Your task to perform on an android device: clear all cookies in the chrome app Image 0: 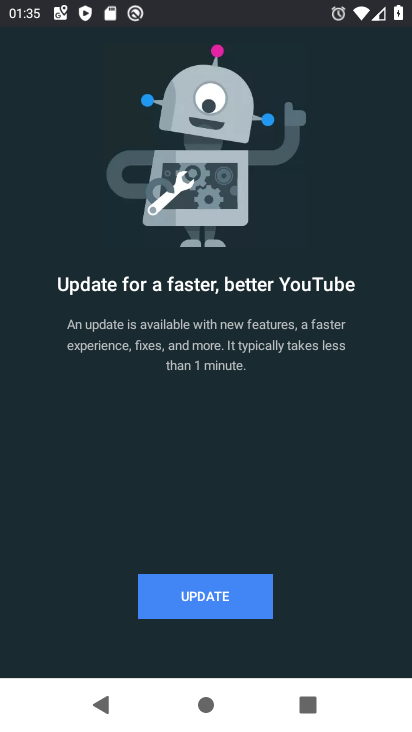
Step 0: press home button
Your task to perform on an android device: clear all cookies in the chrome app Image 1: 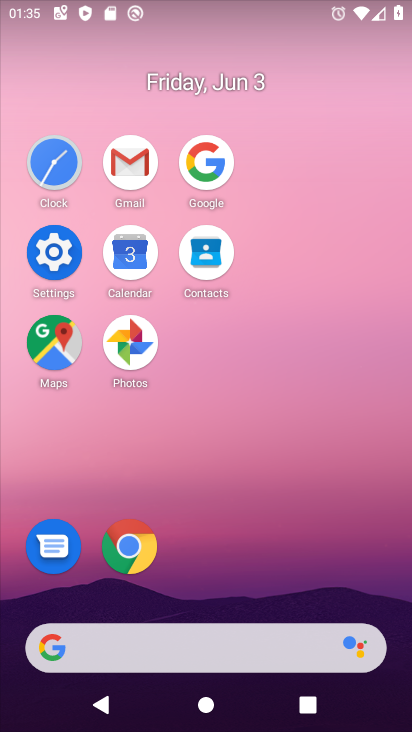
Step 1: click (129, 552)
Your task to perform on an android device: clear all cookies in the chrome app Image 2: 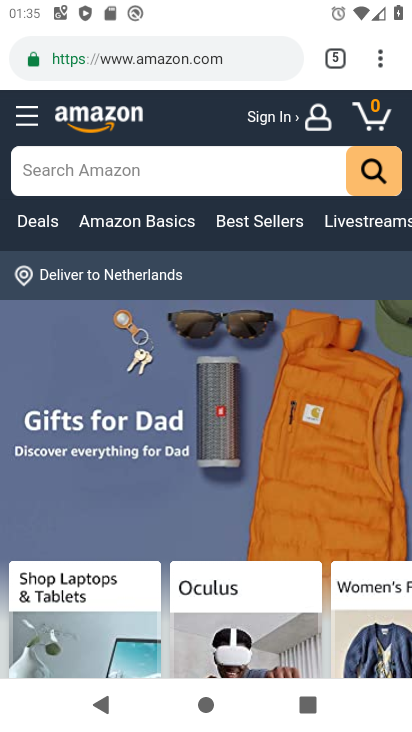
Step 2: click (381, 54)
Your task to perform on an android device: clear all cookies in the chrome app Image 3: 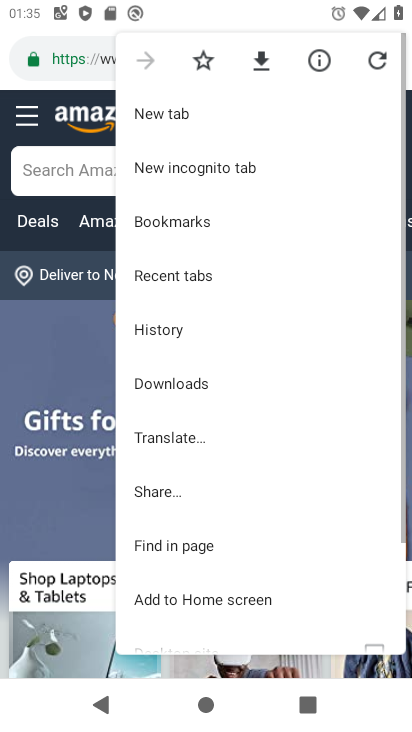
Step 3: drag from (267, 440) to (295, 96)
Your task to perform on an android device: clear all cookies in the chrome app Image 4: 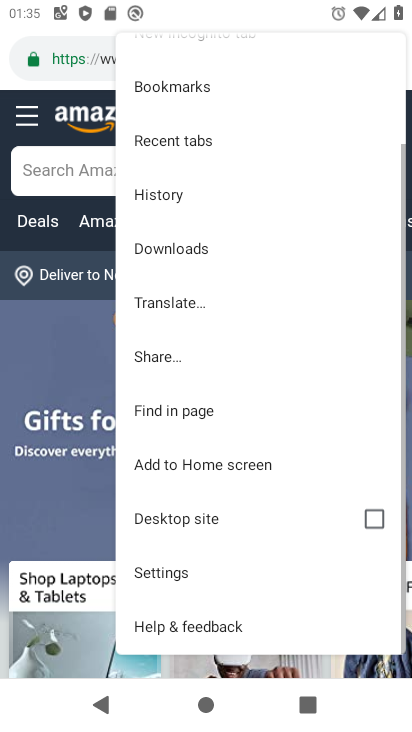
Step 4: click (192, 563)
Your task to perform on an android device: clear all cookies in the chrome app Image 5: 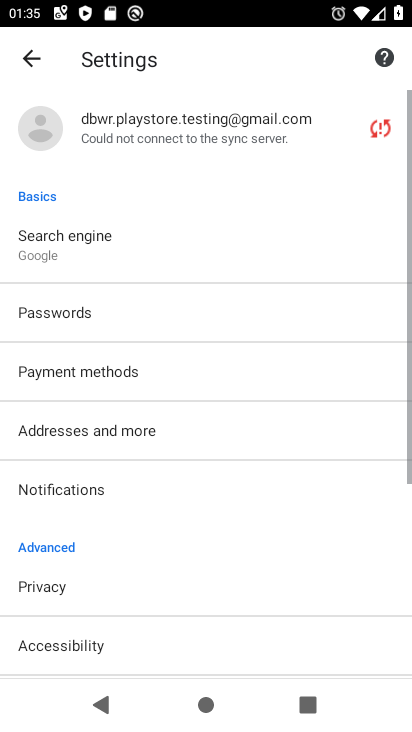
Step 5: drag from (138, 593) to (174, 202)
Your task to perform on an android device: clear all cookies in the chrome app Image 6: 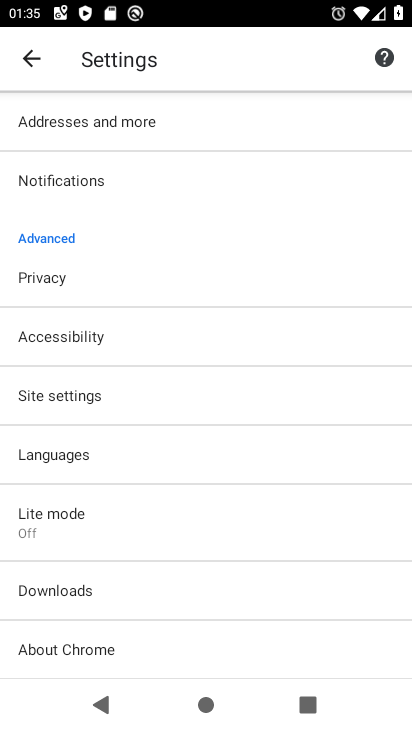
Step 6: click (152, 284)
Your task to perform on an android device: clear all cookies in the chrome app Image 7: 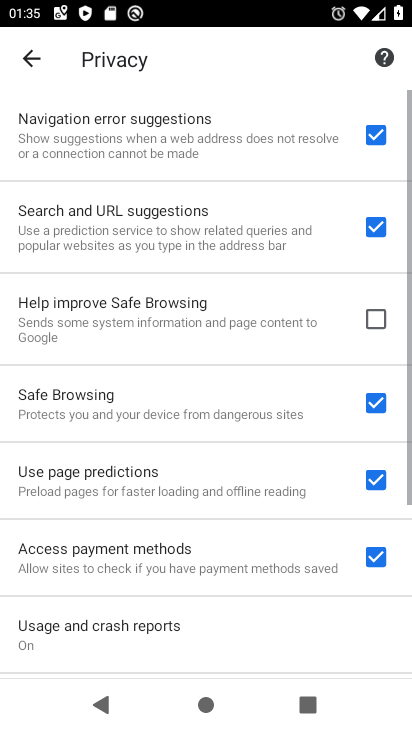
Step 7: drag from (257, 603) to (267, 187)
Your task to perform on an android device: clear all cookies in the chrome app Image 8: 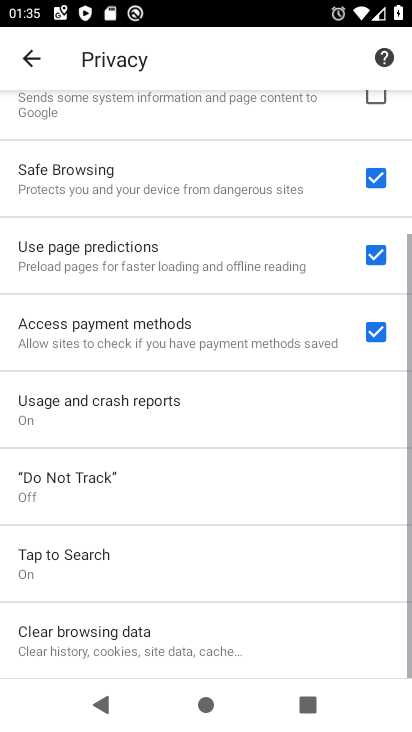
Step 8: click (186, 647)
Your task to perform on an android device: clear all cookies in the chrome app Image 9: 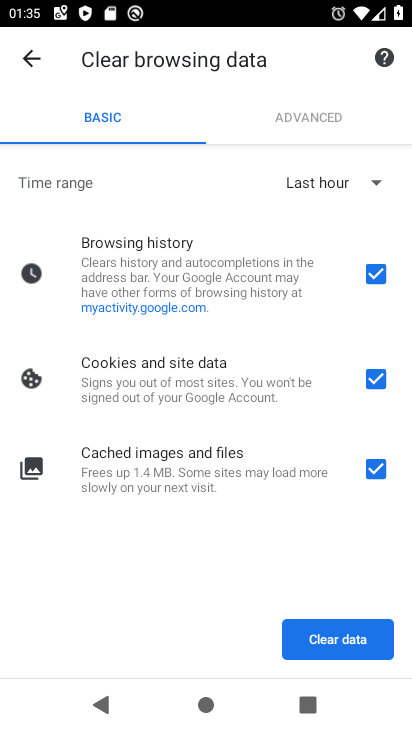
Step 9: click (352, 640)
Your task to perform on an android device: clear all cookies in the chrome app Image 10: 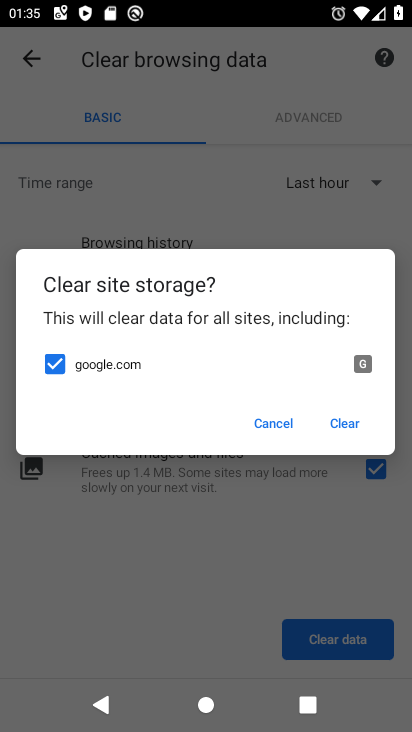
Step 10: click (321, 397)
Your task to perform on an android device: clear all cookies in the chrome app Image 11: 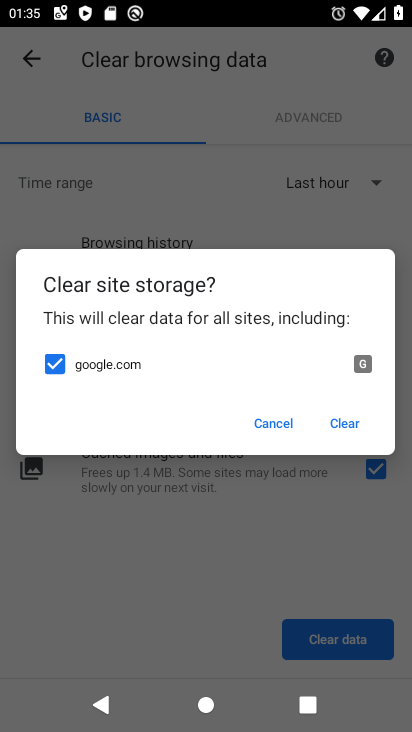
Step 11: click (345, 423)
Your task to perform on an android device: clear all cookies in the chrome app Image 12: 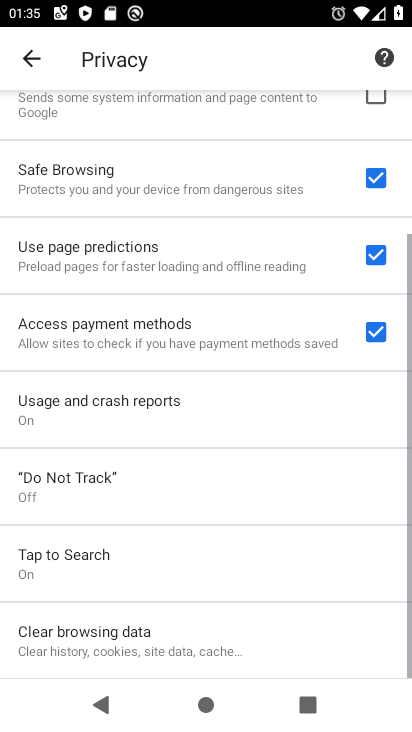
Step 12: task complete